Your task to perform on an android device: turn off location history Image 0: 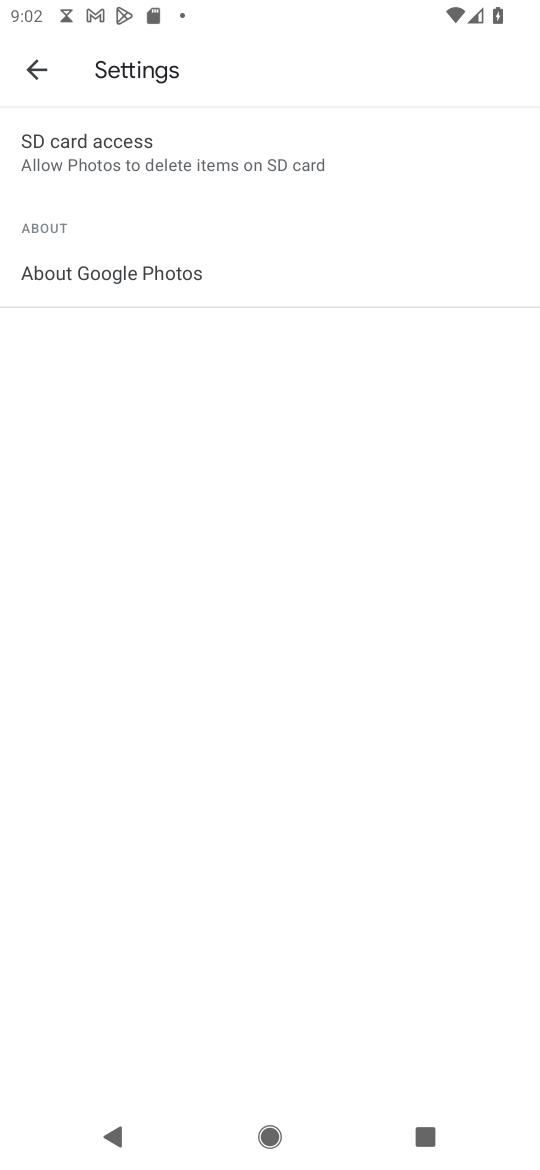
Step 0: press home button
Your task to perform on an android device: turn off location history Image 1: 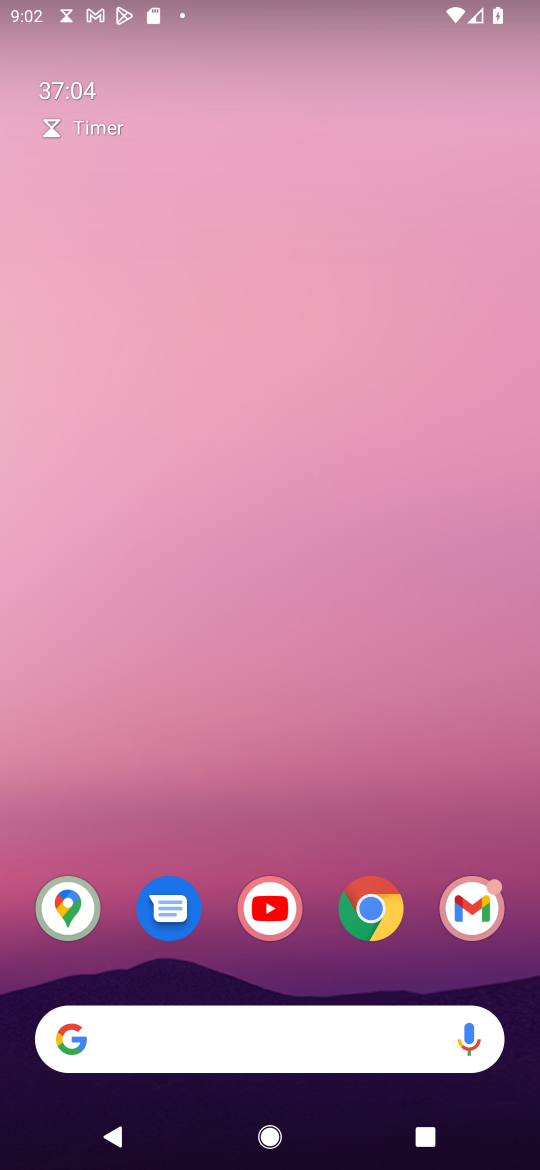
Step 1: drag from (283, 1019) to (365, 324)
Your task to perform on an android device: turn off location history Image 2: 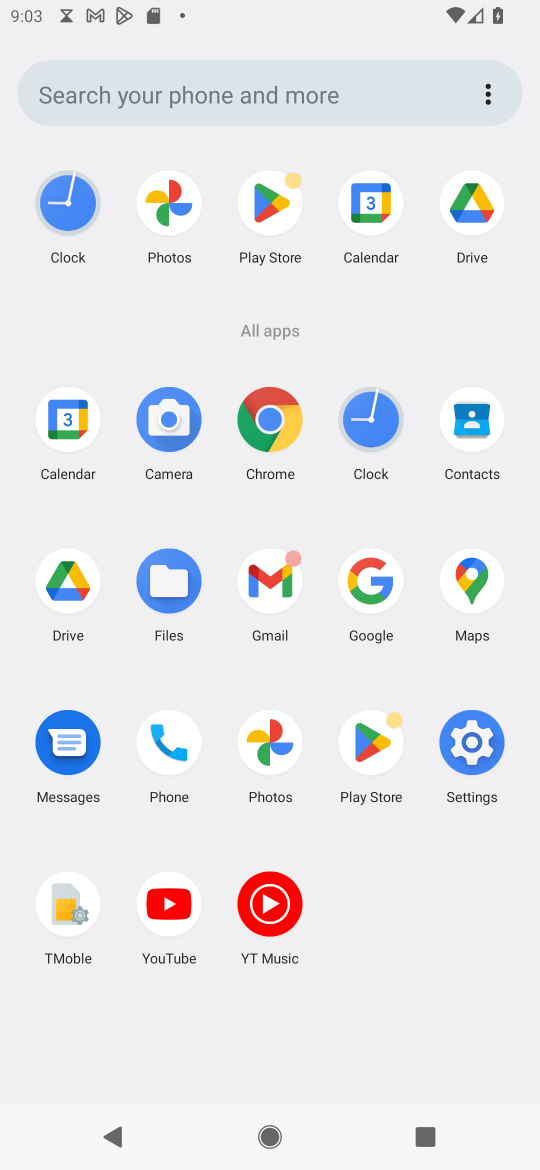
Step 2: click (477, 771)
Your task to perform on an android device: turn off location history Image 3: 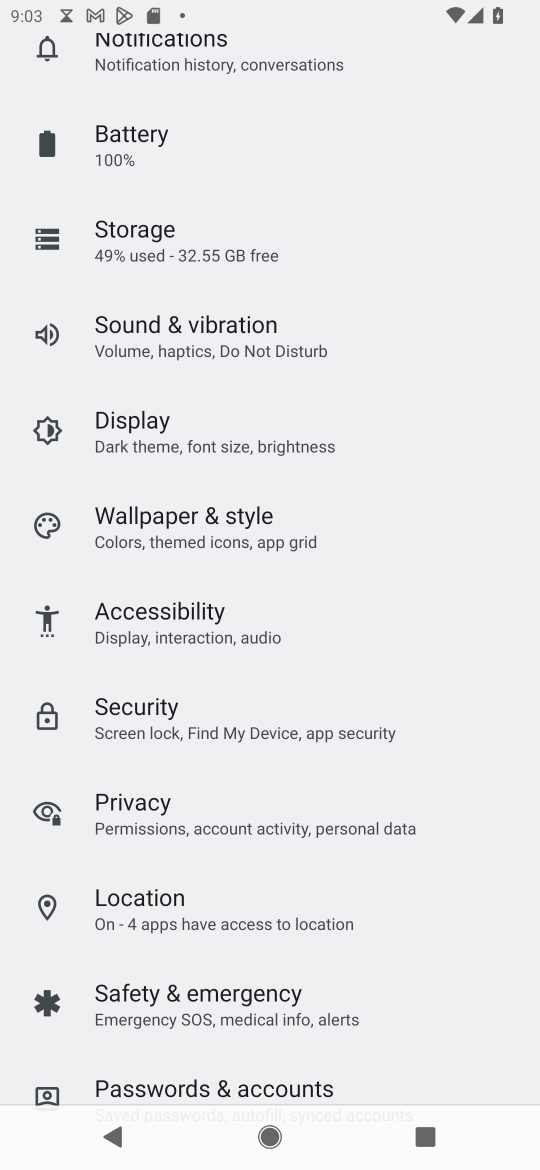
Step 3: click (155, 896)
Your task to perform on an android device: turn off location history Image 4: 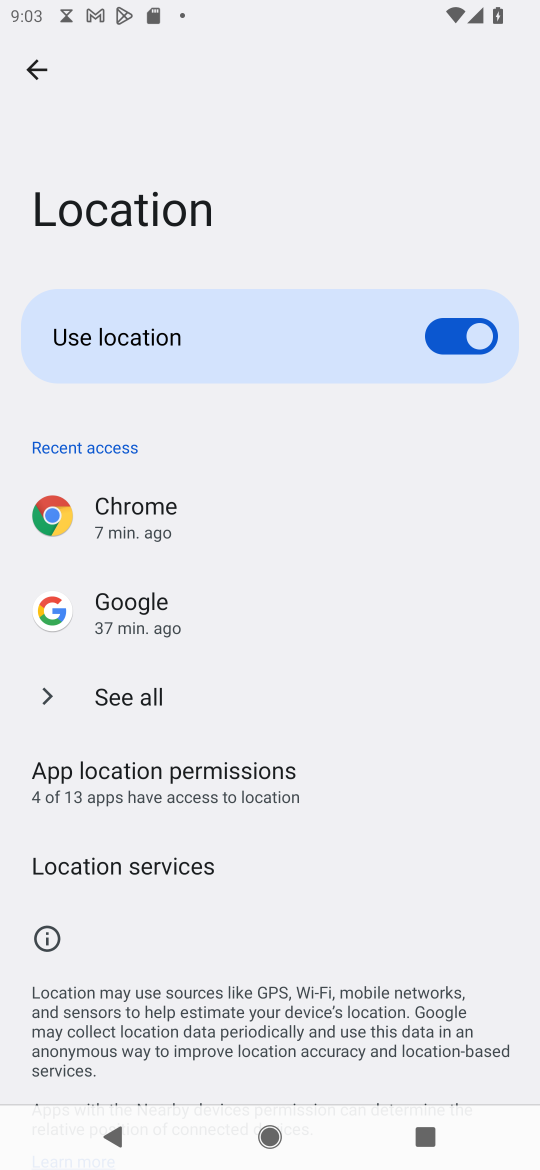
Step 4: click (169, 873)
Your task to perform on an android device: turn off location history Image 5: 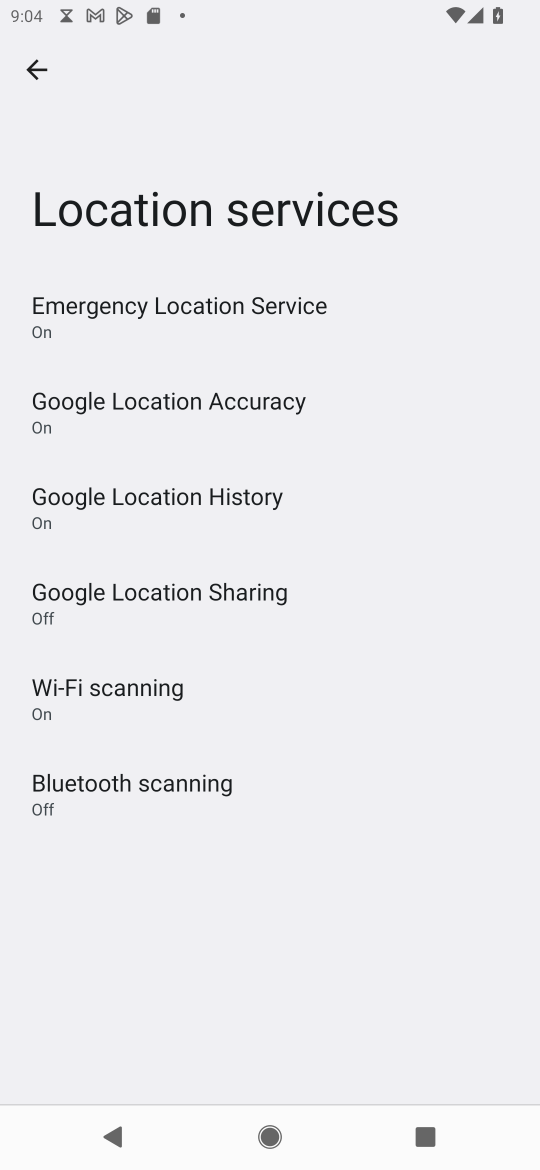
Step 5: click (242, 502)
Your task to perform on an android device: turn off location history Image 6: 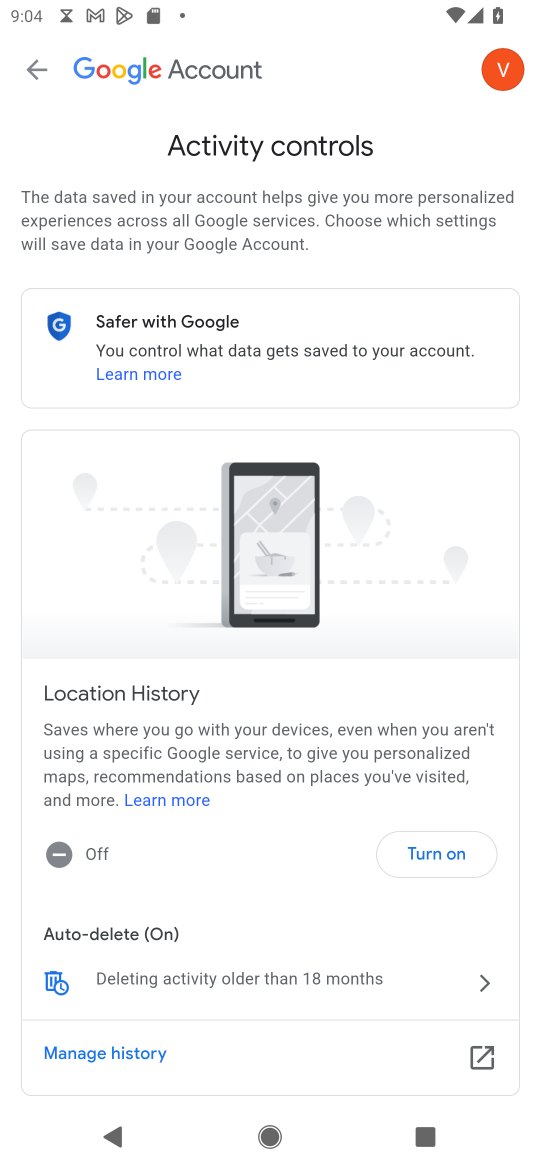
Step 6: task complete